Your task to perform on an android device: Open Google Maps Image 0: 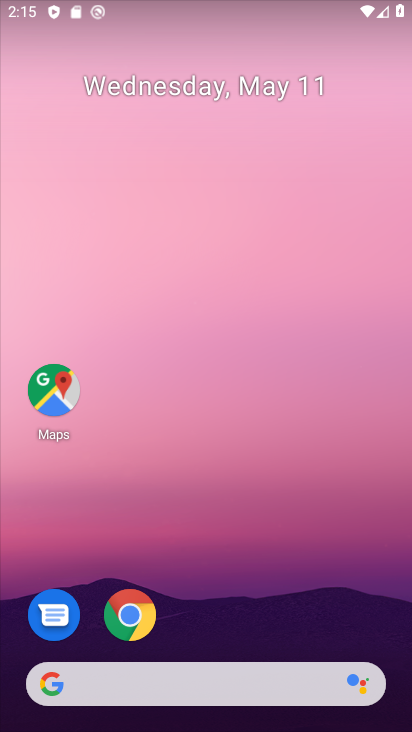
Step 0: click (47, 394)
Your task to perform on an android device: Open Google Maps Image 1: 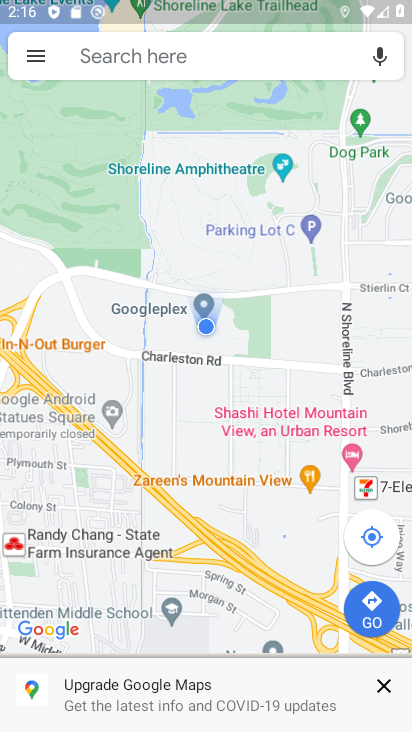
Step 1: task complete